Your task to perform on an android device: toggle translation in the chrome app Image 0: 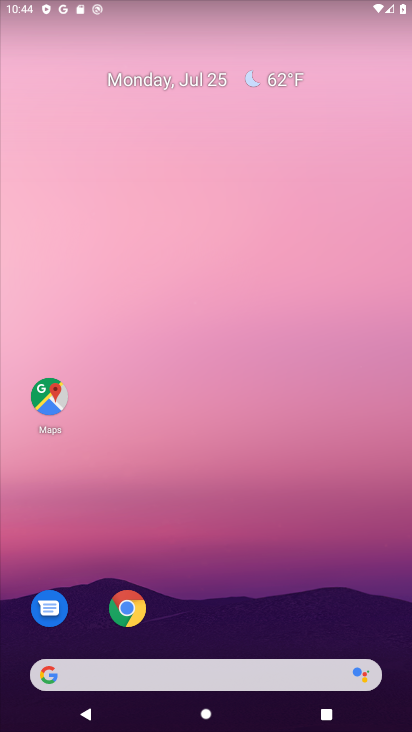
Step 0: drag from (251, 610) to (310, 155)
Your task to perform on an android device: toggle translation in the chrome app Image 1: 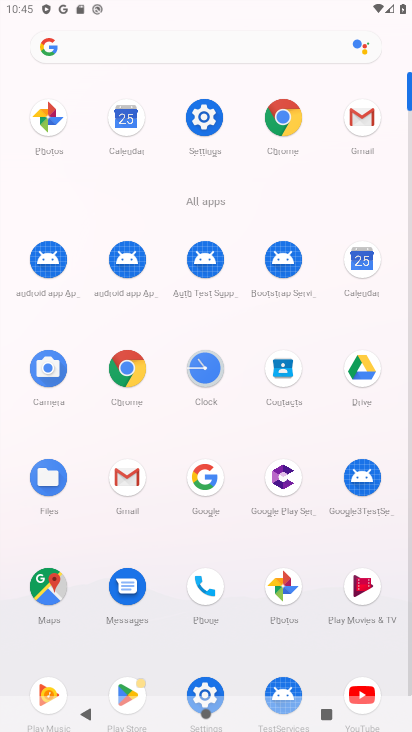
Step 1: click (125, 376)
Your task to perform on an android device: toggle translation in the chrome app Image 2: 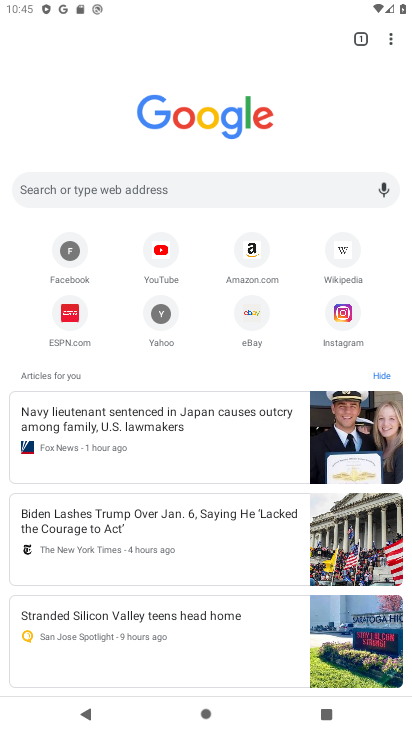
Step 2: click (396, 38)
Your task to perform on an android device: toggle translation in the chrome app Image 3: 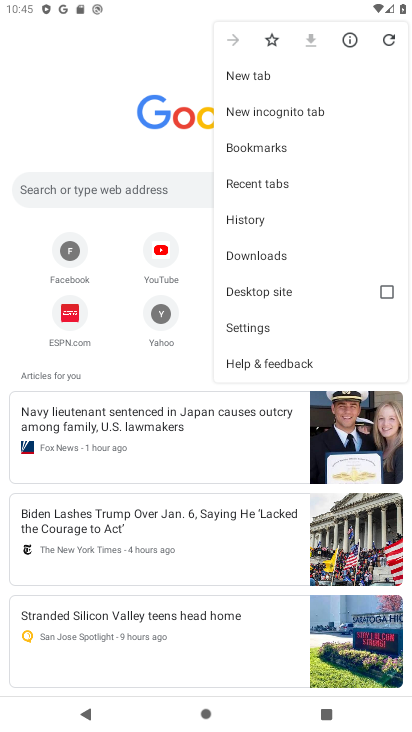
Step 3: click (274, 326)
Your task to perform on an android device: toggle translation in the chrome app Image 4: 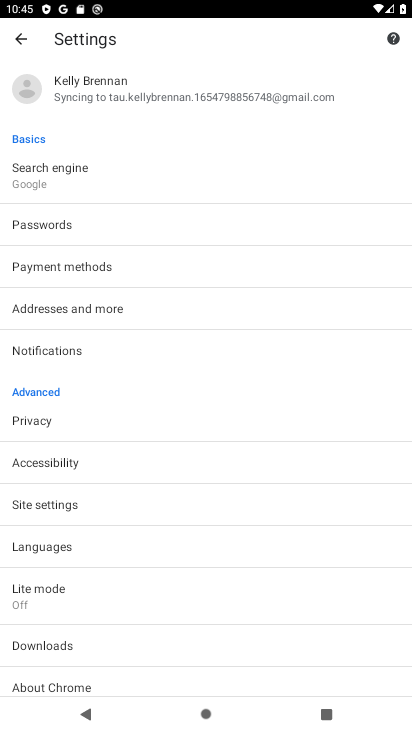
Step 4: task complete